Your task to perform on an android device: What's on my calendar tomorrow? Image 0: 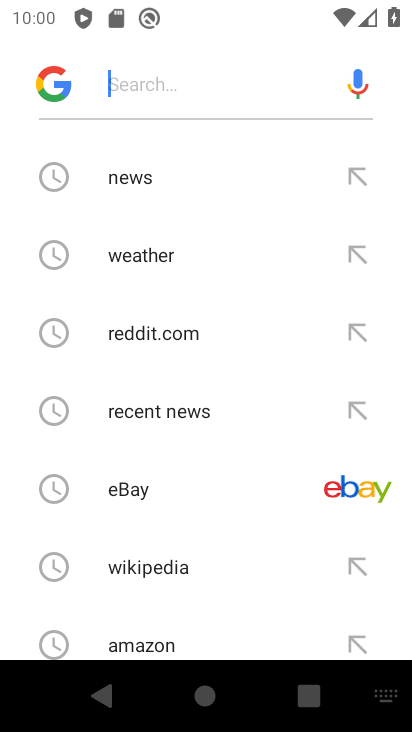
Step 0: press home button
Your task to perform on an android device: What's on my calendar tomorrow? Image 1: 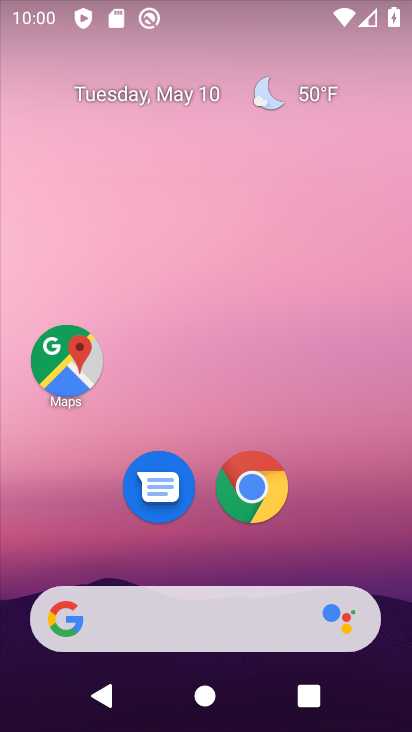
Step 1: drag from (330, 528) to (332, 0)
Your task to perform on an android device: What's on my calendar tomorrow? Image 2: 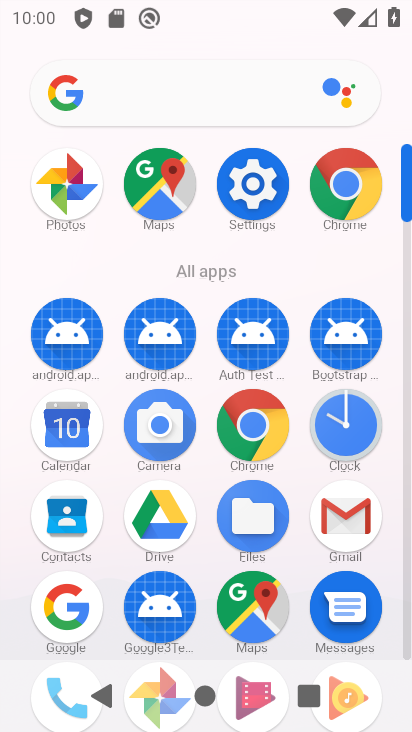
Step 2: click (76, 446)
Your task to perform on an android device: What's on my calendar tomorrow? Image 3: 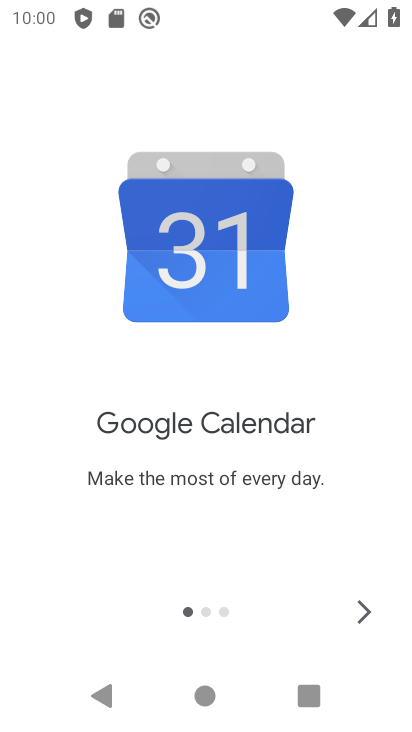
Step 3: click (351, 616)
Your task to perform on an android device: What's on my calendar tomorrow? Image 4: 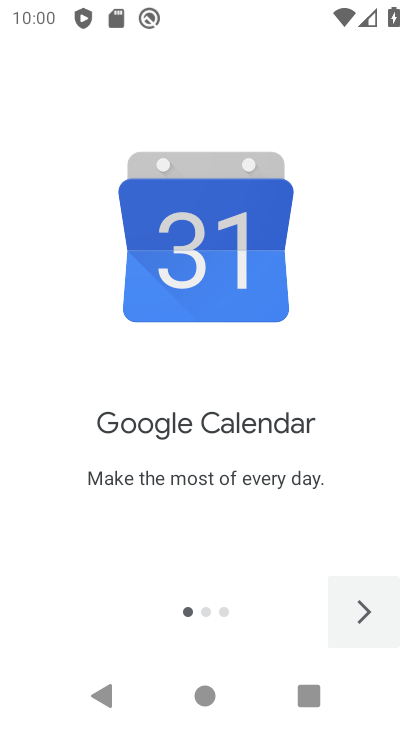
Step 4: click (351, 616)
Your task to perform on an android device: What's on my calendar tomorrow? Image 5: 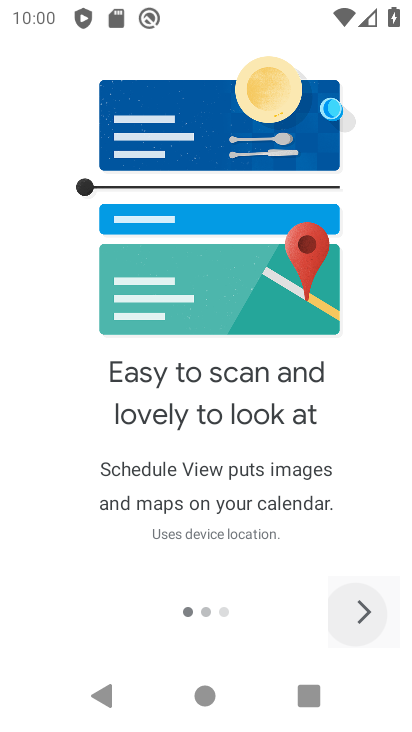
Step 5: click (351, 616)
Your task to perform on an android device: What's on my calendar tomorrow? Image 6: 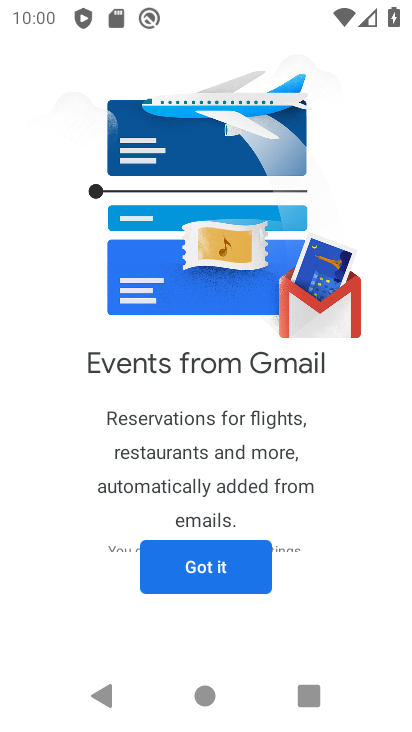
Step 6: click (269, 570)
Your task to perform on an android device: What's on my calendar tomorrow? Image 7: 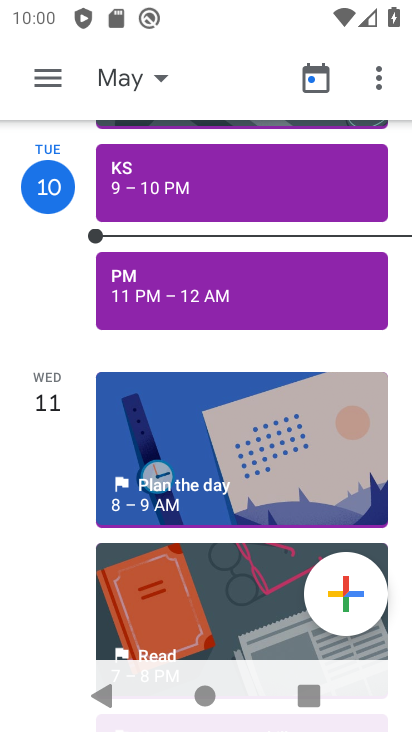
Step 7: click (122, 94)
Your task to perform on an android device: What's on my calendar tomorrow? Image 8: 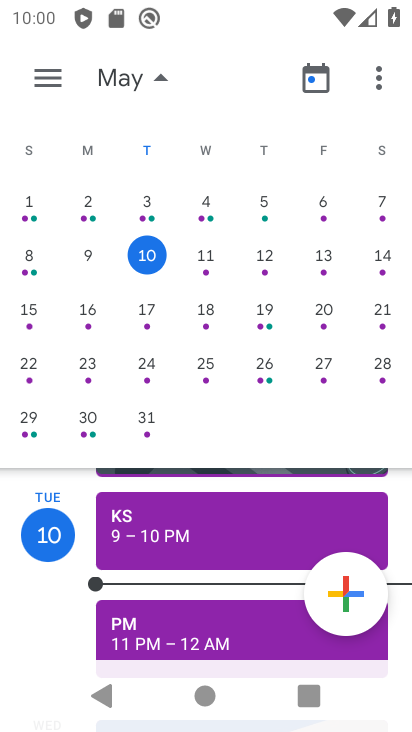
Step 8: click (196, 257)
Your task to perform on an android device: What's on my calendar tomorrow? Image 9: 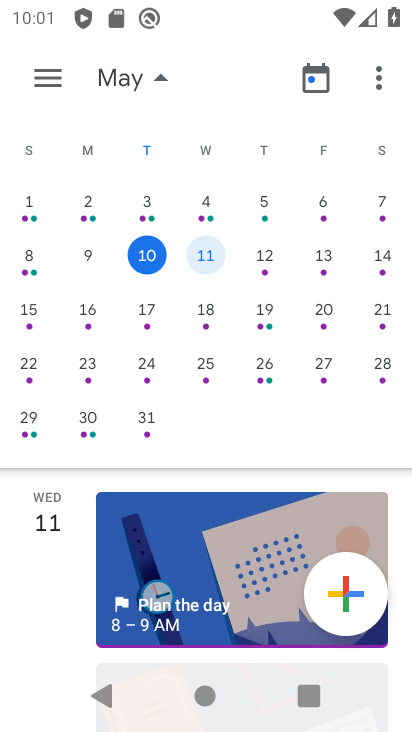
Step 9: click (261, 265)
Your task to perform on an android device: What's on my calendar tomorrow? Image 10: 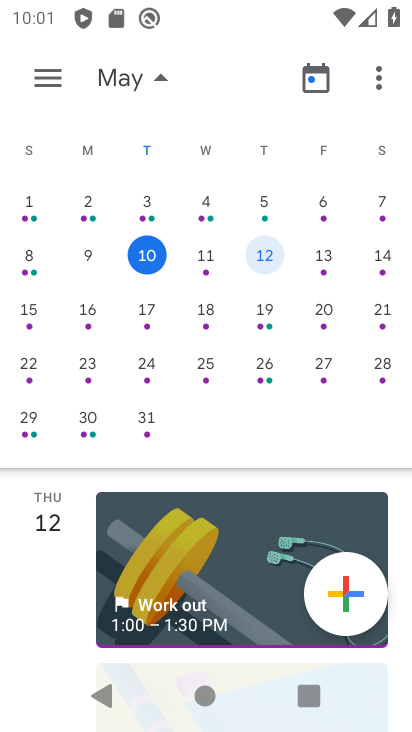
Step 10: click (49, 79)
Your task to perform on an android device: What's on my calendar tomorrow? Image 11: 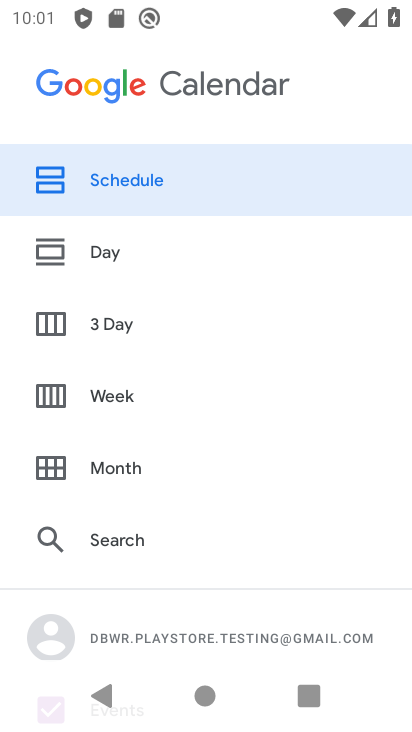
Step 11: click (131, 182)
Your task to perform on an android device: What's on my calendar tomorrow? Image 12: 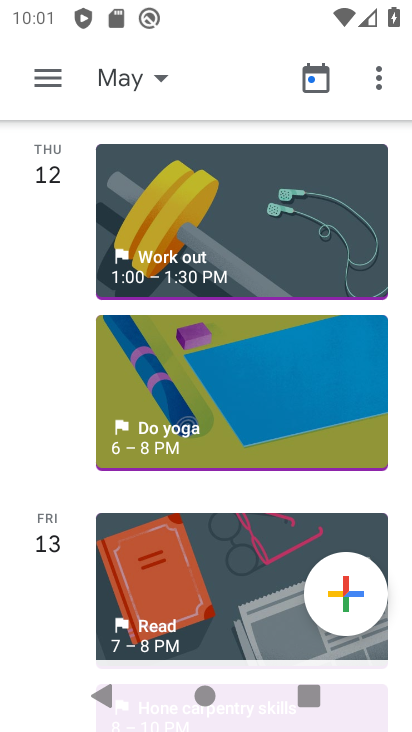
Step 12: task complete